Your task to perform on an android device: Open Google Image 0: 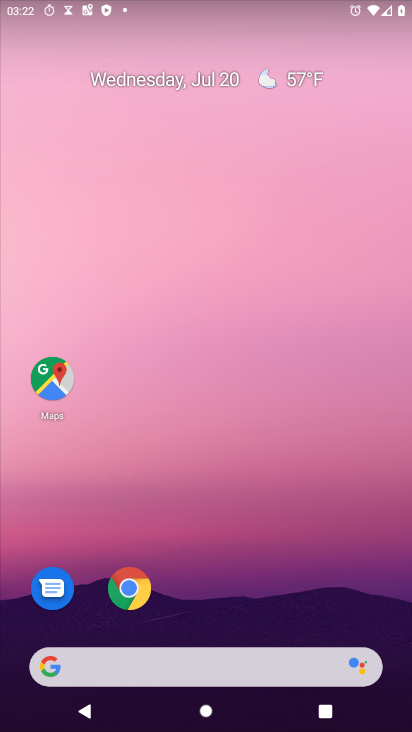
Step 0: drag from (182, 549) to (275, 69)
Your task to perform on an android device: Open Google Image 1: 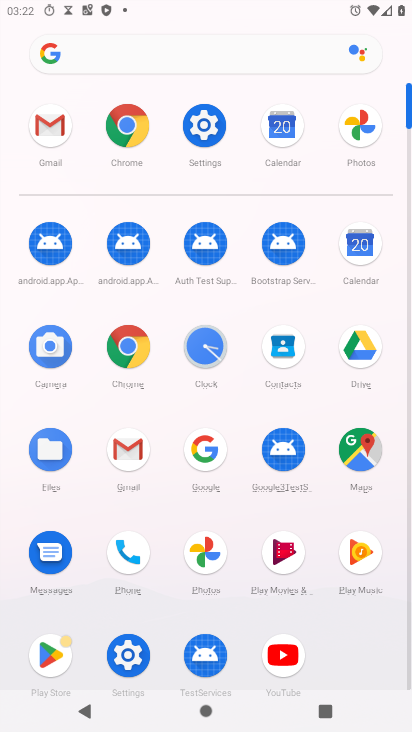
Step 1: click (131, 329)
Your task to perform on an android device: Open Google Image 2: 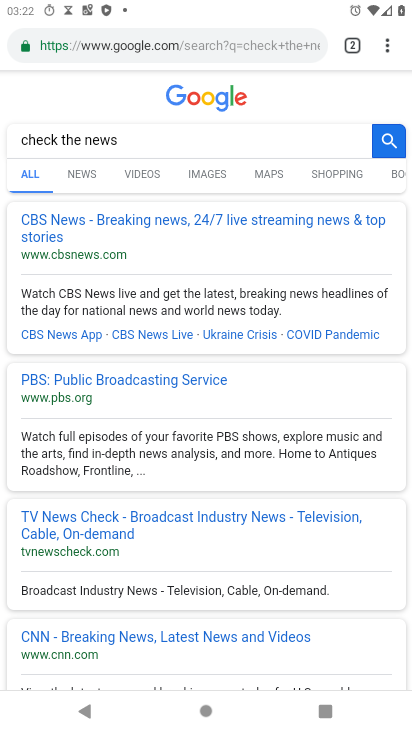
Step 2: task complete